Your task to perform on an android device: open sync settings in chrome Image 0: 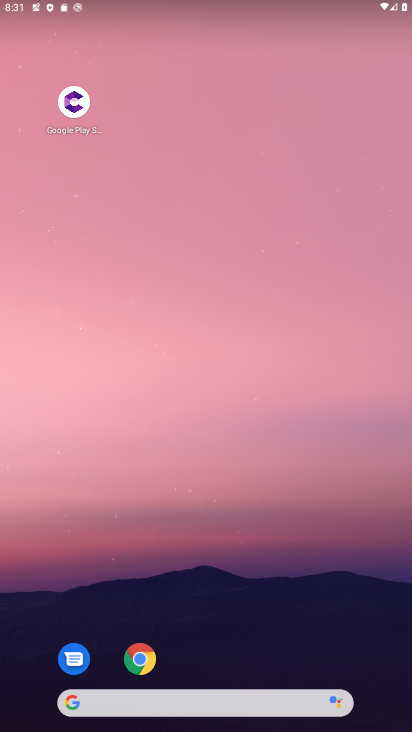
Step 0: drag from (222, 650) to (198, 95)
Your task to perform on an android device: open sync settings in chrome Image 1: 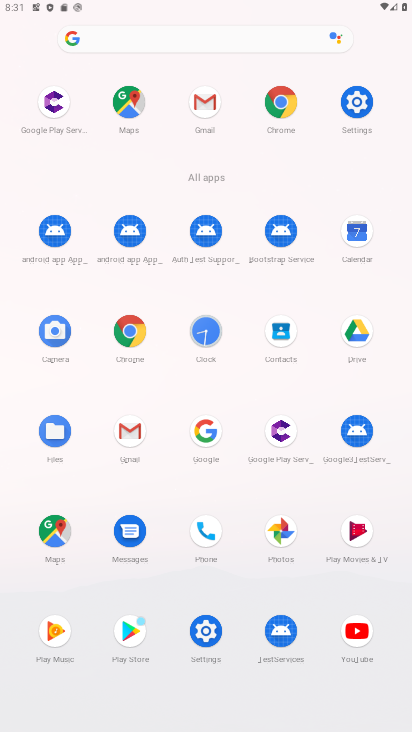
Step 1: click (127, 338)
Your task to perform on an android device: open sync settings in chrome Image 2: 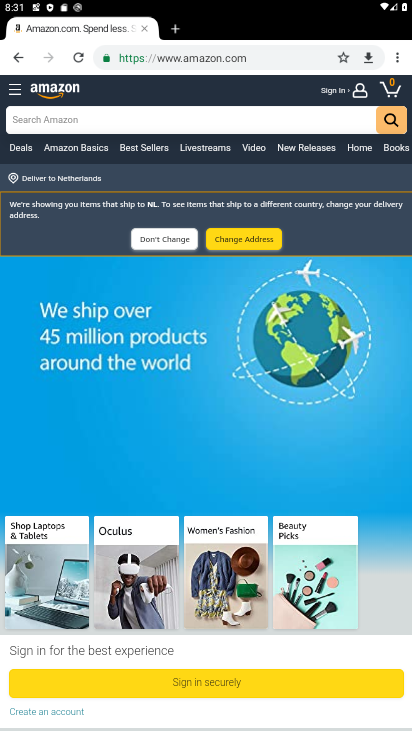
Step 2: click (397, 53)
Your task to perform on an android device: open sync settings in chrome Image 3: 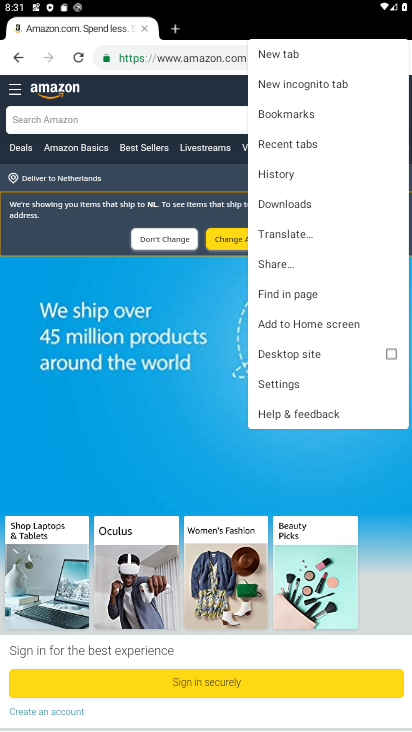
Step 3: click (291, 386)
Your task to perform on an android device: open sync settings in chrome Image 4: 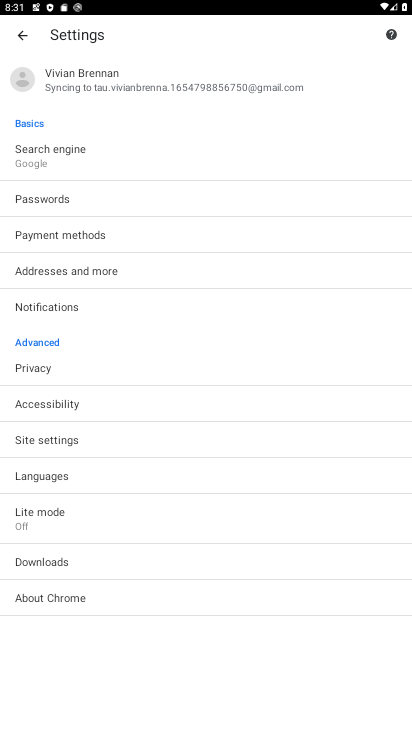
Step 4: click (102, 84)
Your task to perform on an android device: open sync settings in chrome Image 5: 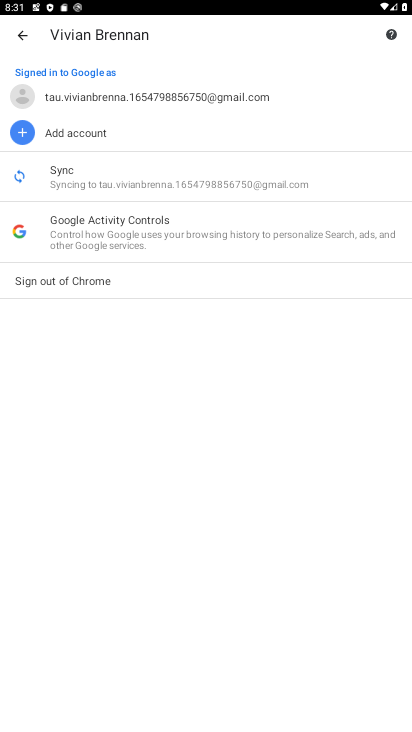
Step 5: click (151, 193)
Your task to perform on an android device: open sync settings in chrome Image 6: 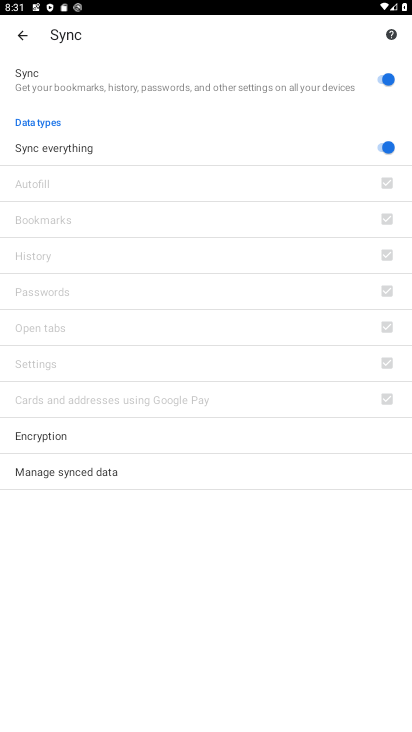
Step 6: click (73, 173)
Your task to perform on an android device: open sync settings in chrome Image 7: 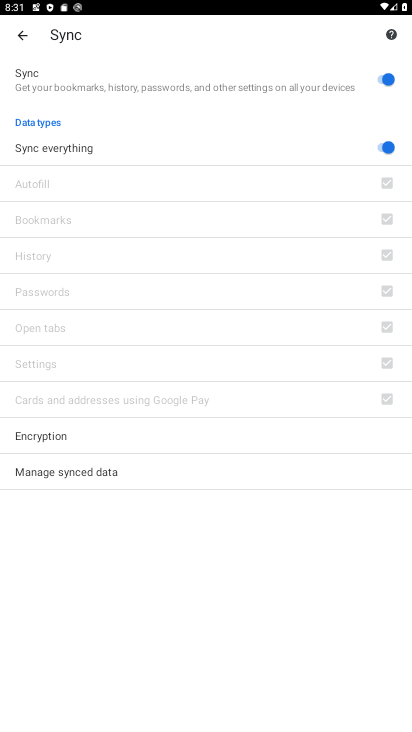
Step 7: task complete